Your task to perform on an android device: Open calendar and show me the first week of next month Image 0: 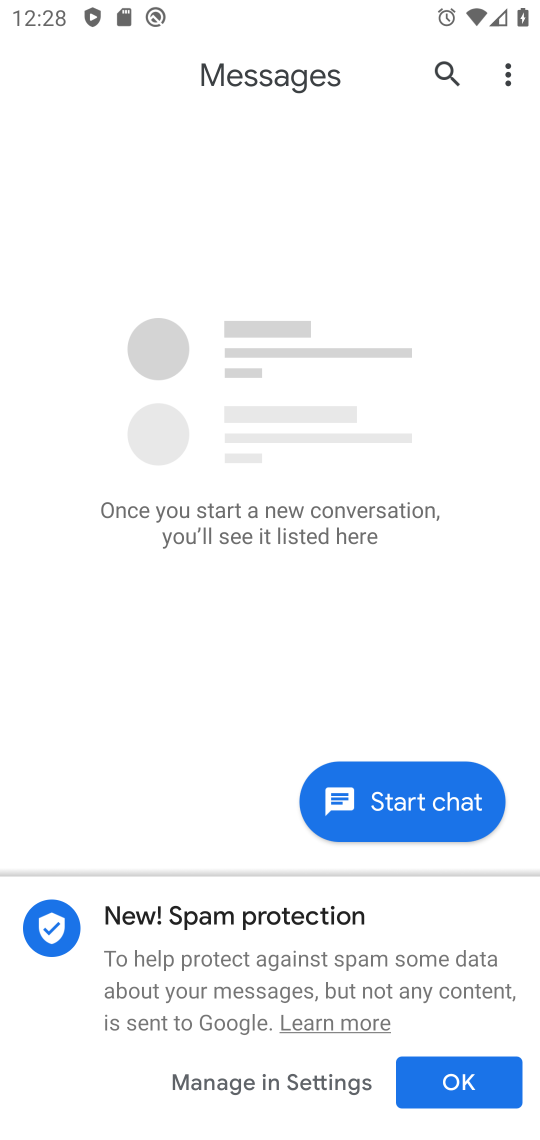
Step 0: press home button
Your task to perform on an android device: Open calendar and show me the first week of next month Image 1: 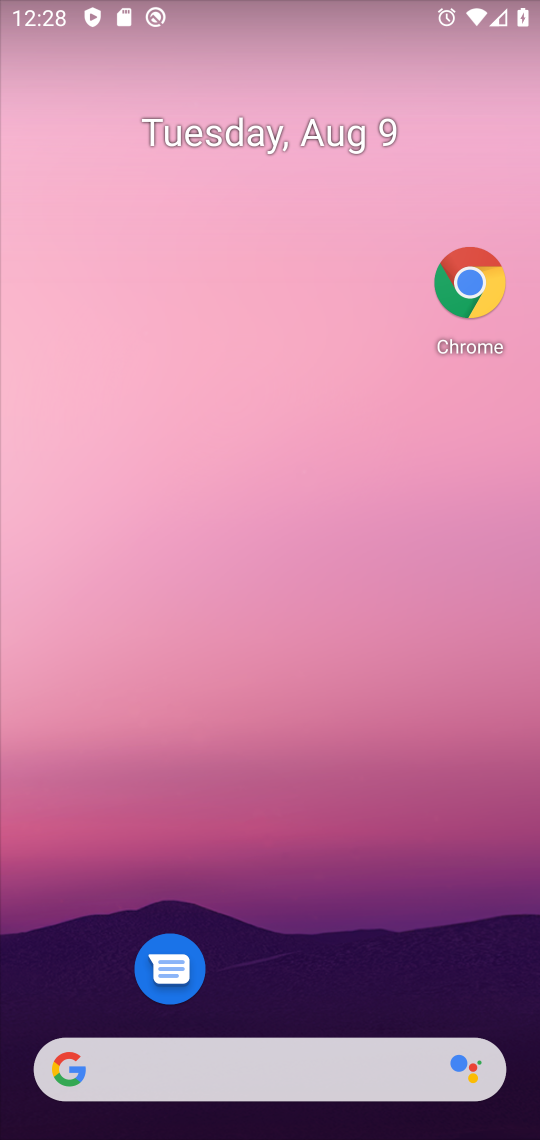
Step 1: drag from (336, 686) to (355, 613)
Your task to perform on an android device: Open calendar and show me the first week of next month Image 2: 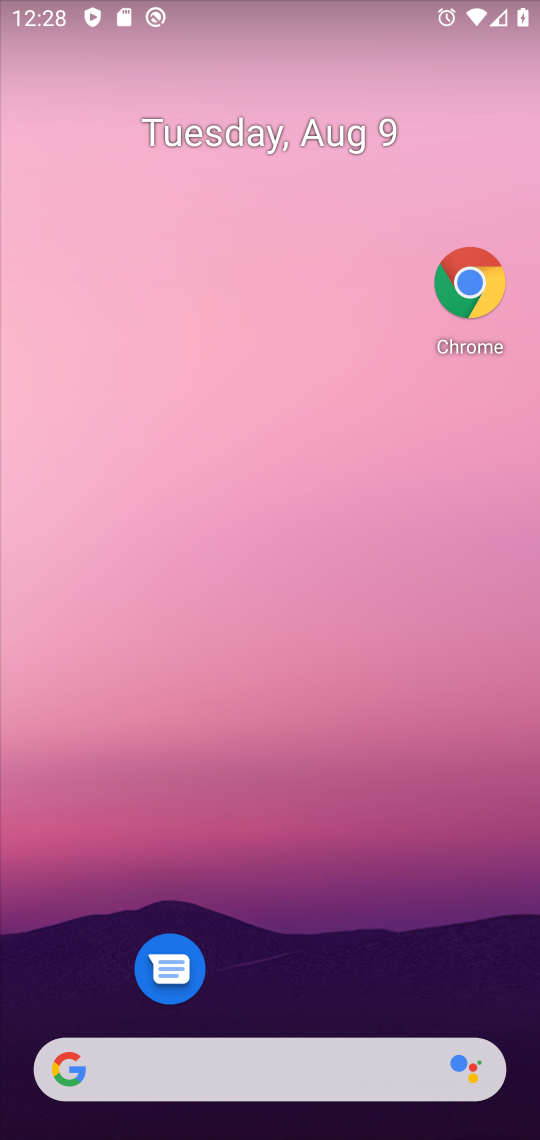
Step 2: drag from (282, 998) to (438, 494)
Your task to perform on an android device: Open calendar and show me the first week of next month Image 3: 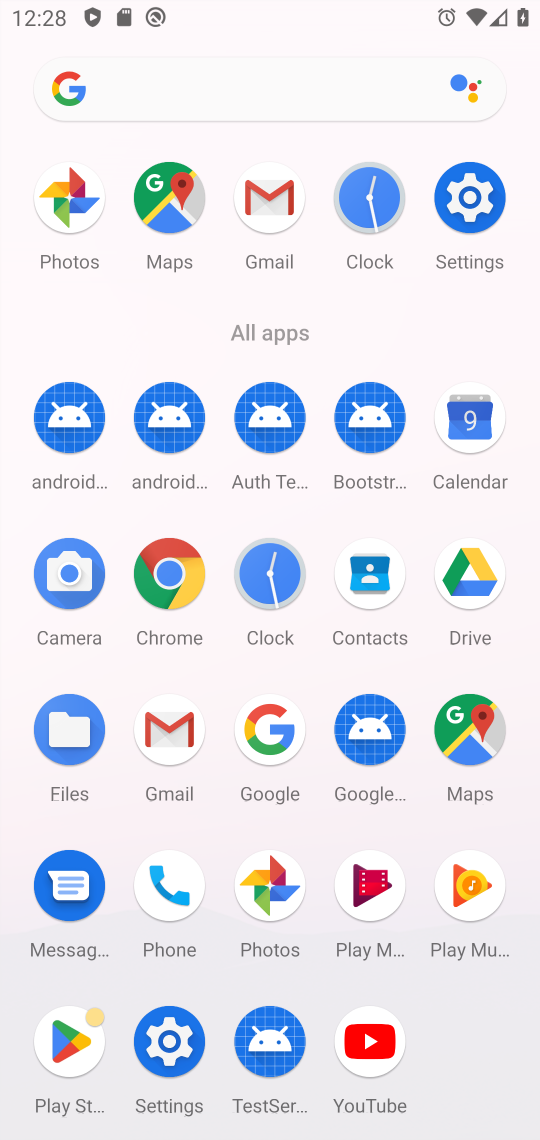
Step 3: click (460, 428)
Your task to perform on an android device: Open calendar and show me the first week of next month Image 4: 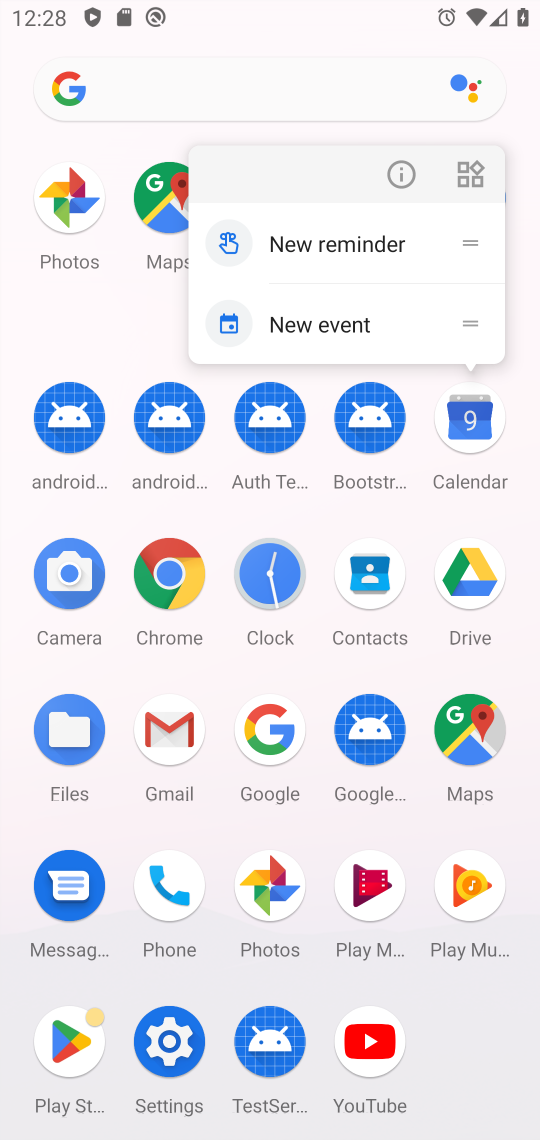
Step 4: click (379, 168)
Your task to perform on an android device: Open calendar and show me the first week of next month Image 5: 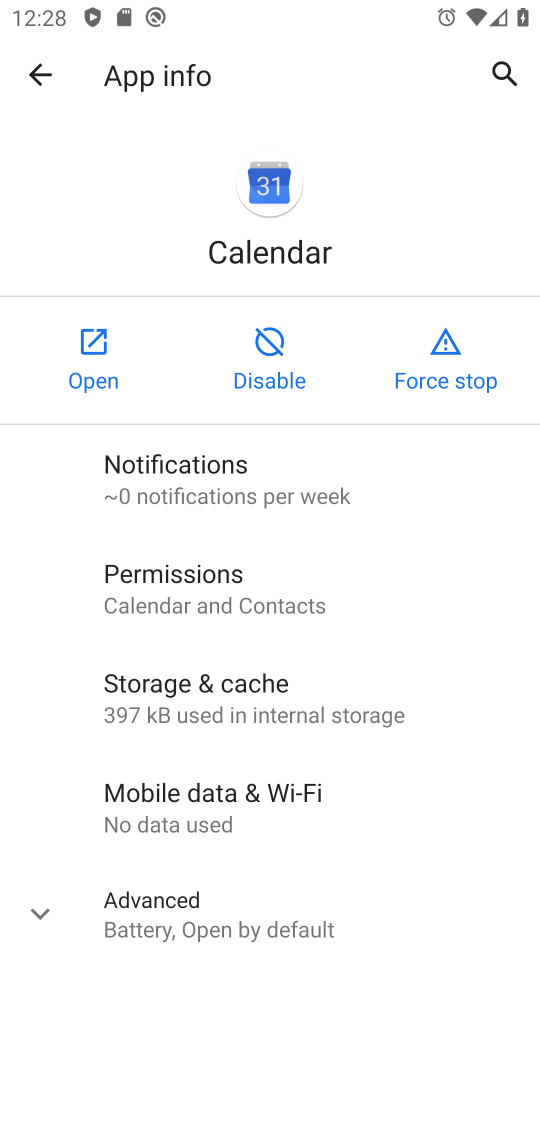
Step 5: click (83, 358)
Your task to perform on an android device: Open calendar and show me the first week of next month Image 6: 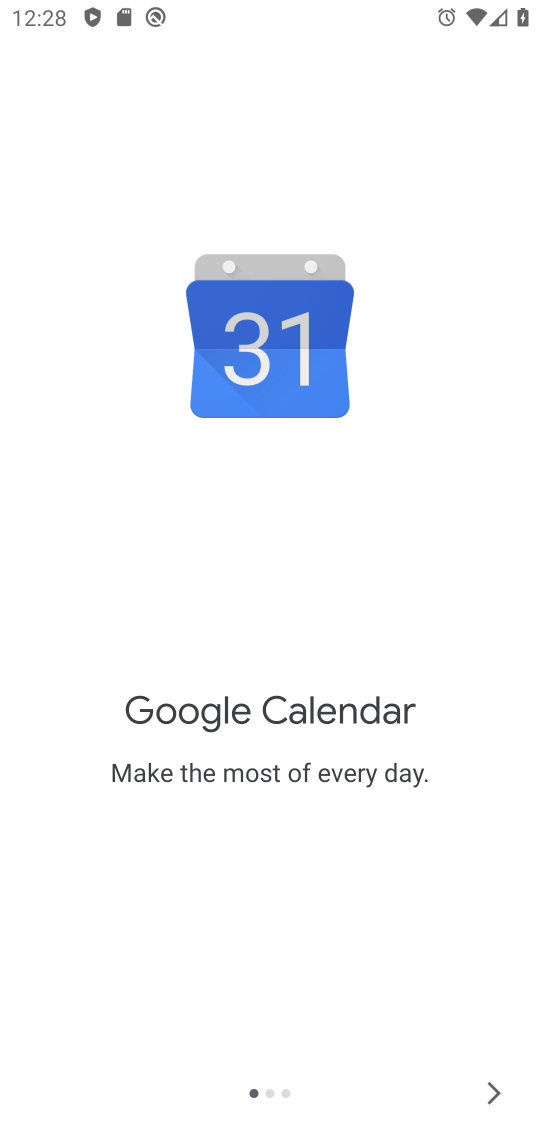
Step 6: click (495, 1093)
Your task to perform on an android device: Open calendar and show me the first week of next month Image 7: 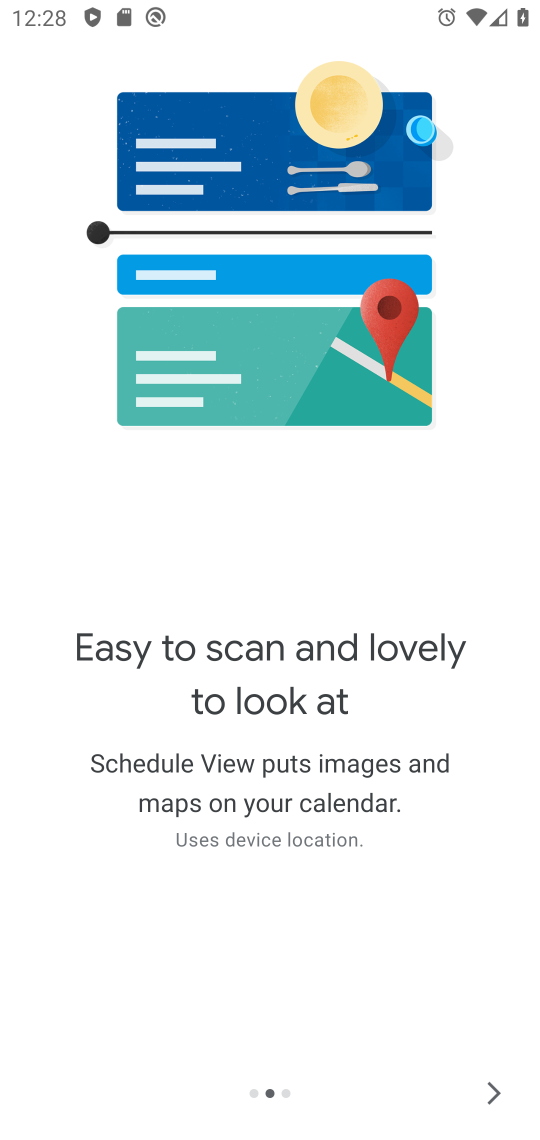
Step 7: click (497, 1093)
Your task to perform on an android device: Open calendar and show me the first week of next month Image 8: 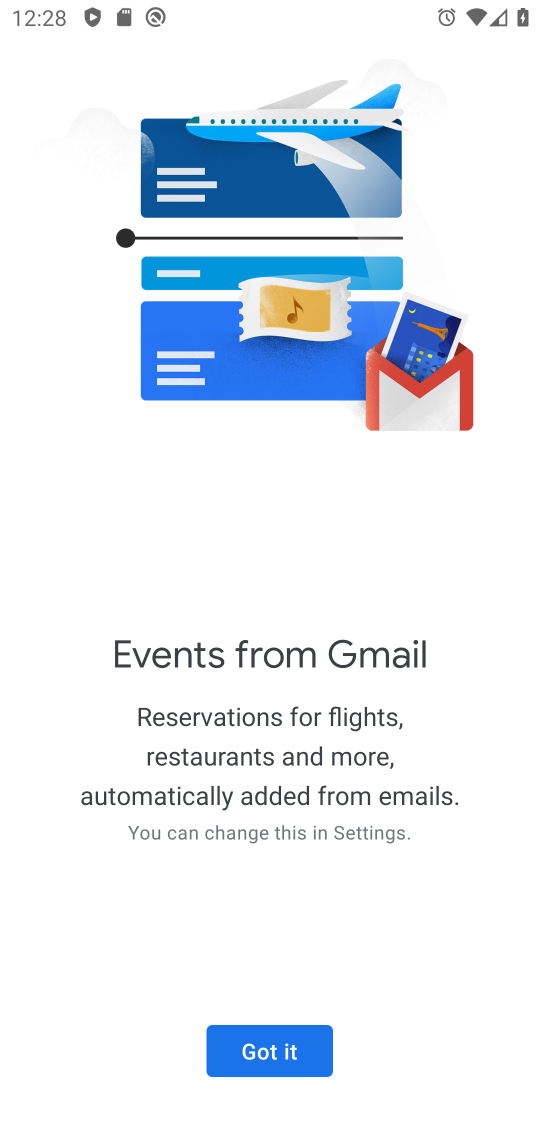
Step 8: click (307, 1038)
Your task to perform on an android device: Open calendar and show me the first week of next month Image 9: 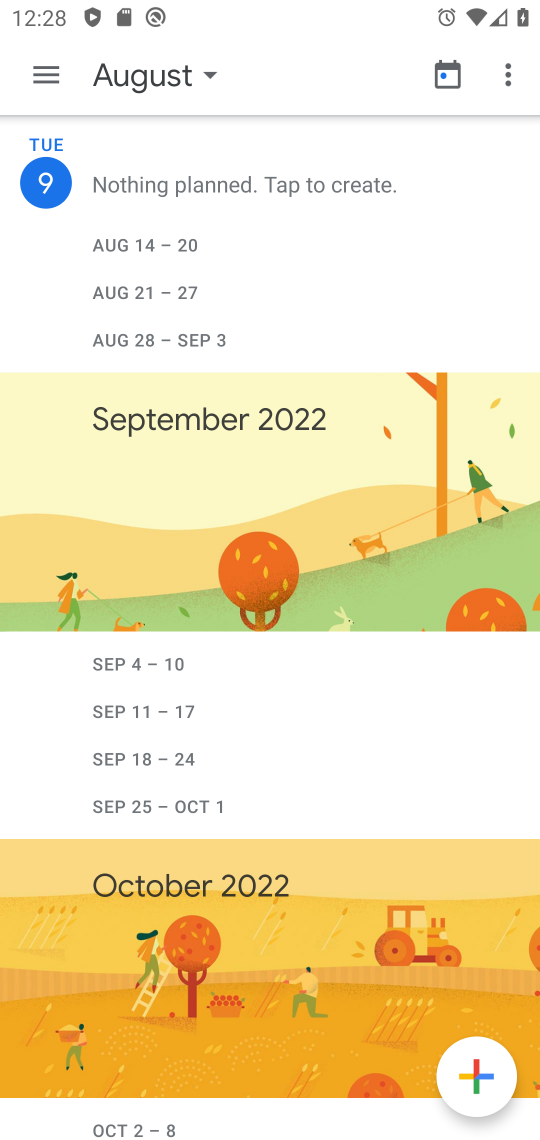
Step 9: click (179, 84)
Your task to perform on an android device: Open calendar and show me the first week of next month Image 10: 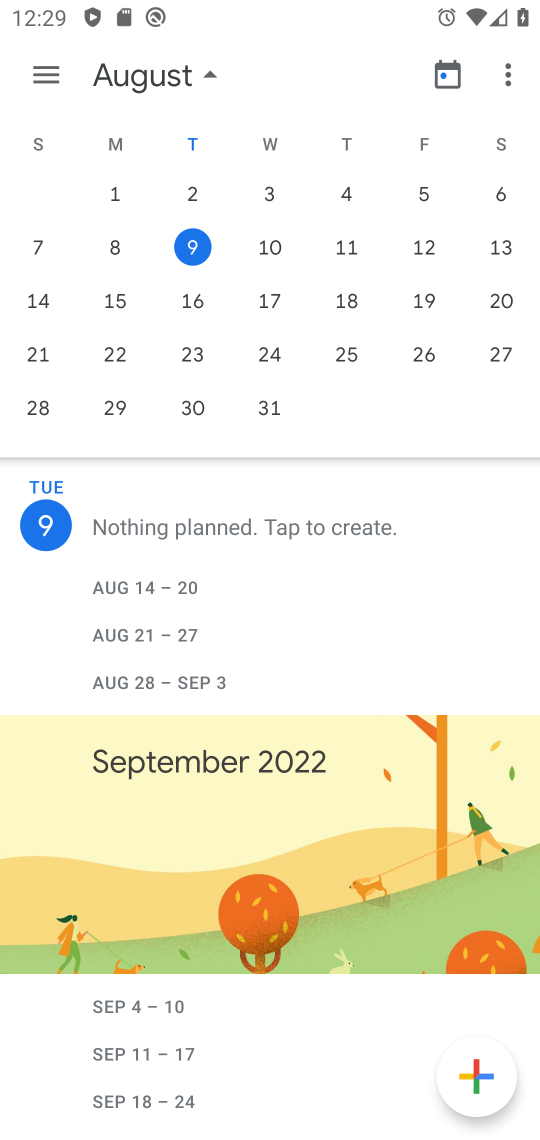
Step 10: drag from (437, 299) to (0, 374)
Your task to perform on an android device: Open calendar and show me the first week of next month Image 11: 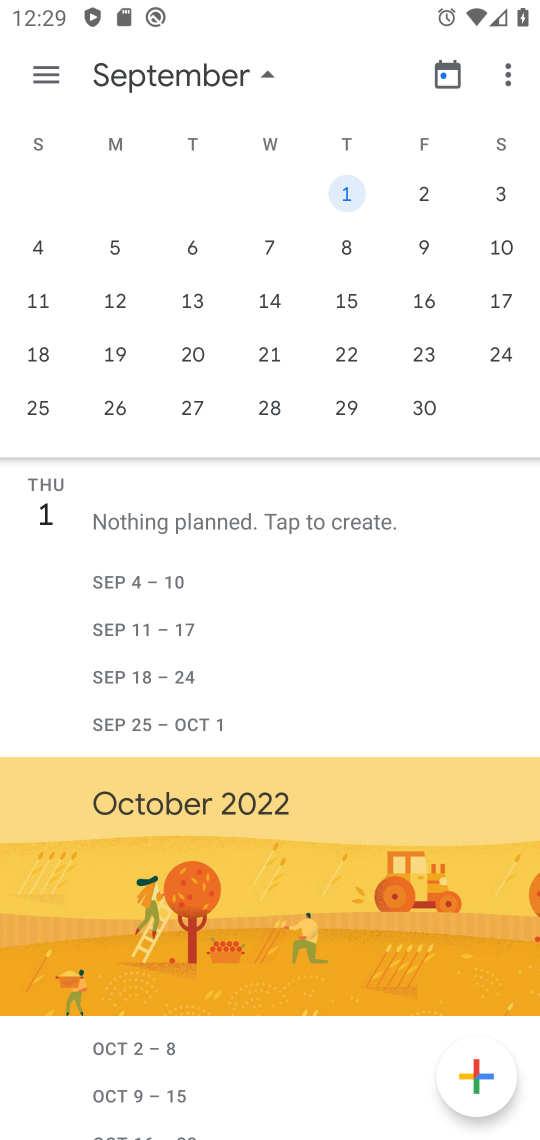
Step 11: click (424, 187)
Your task to perform on an android device: Open calendar and show me the first week of next month Image 12: 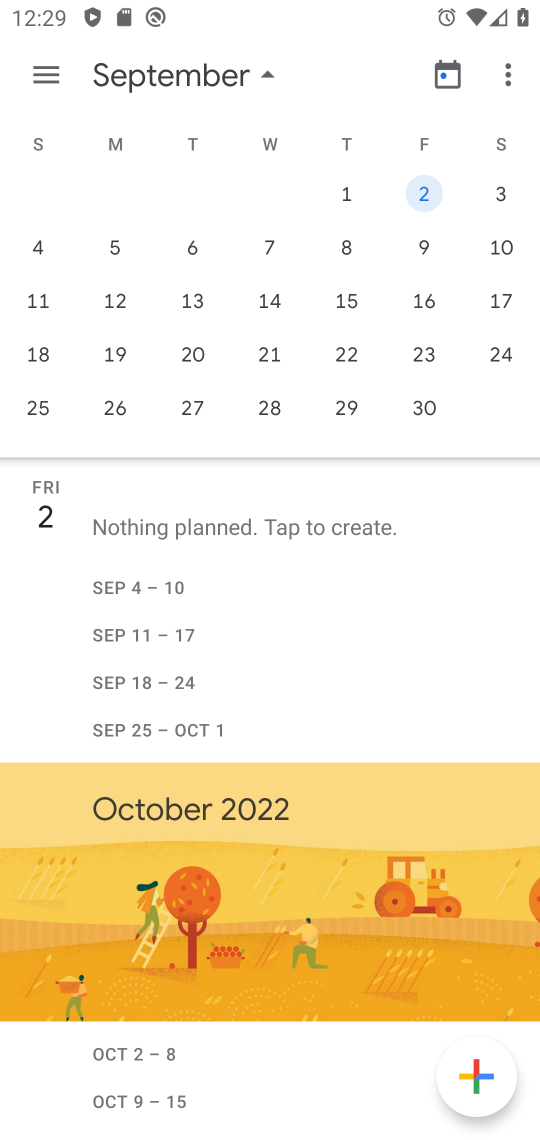
Step 12: task complete